Your task to perform on an android device: install app "Google Docs" Image 0: 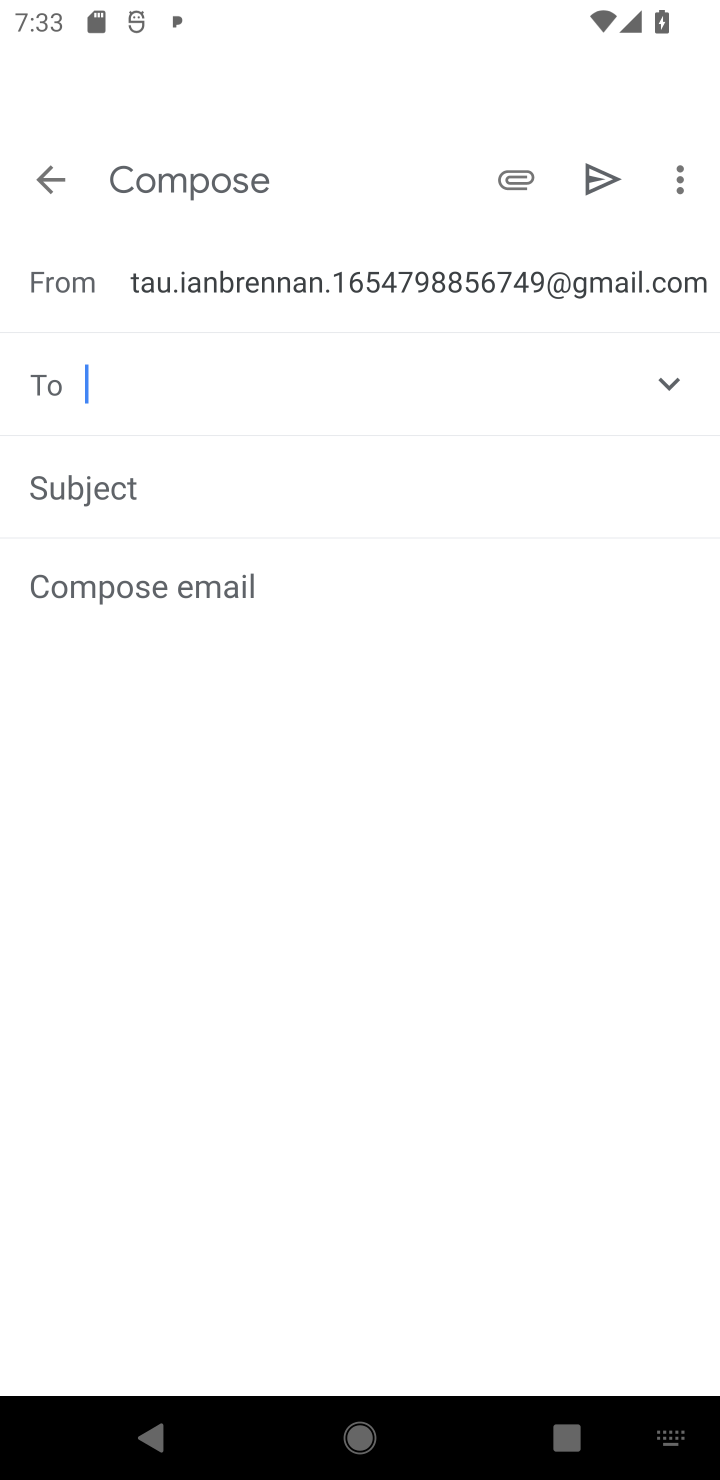
Step 0: press home button
Your task to perform on an android device: install app "Google Docs" Image 1: 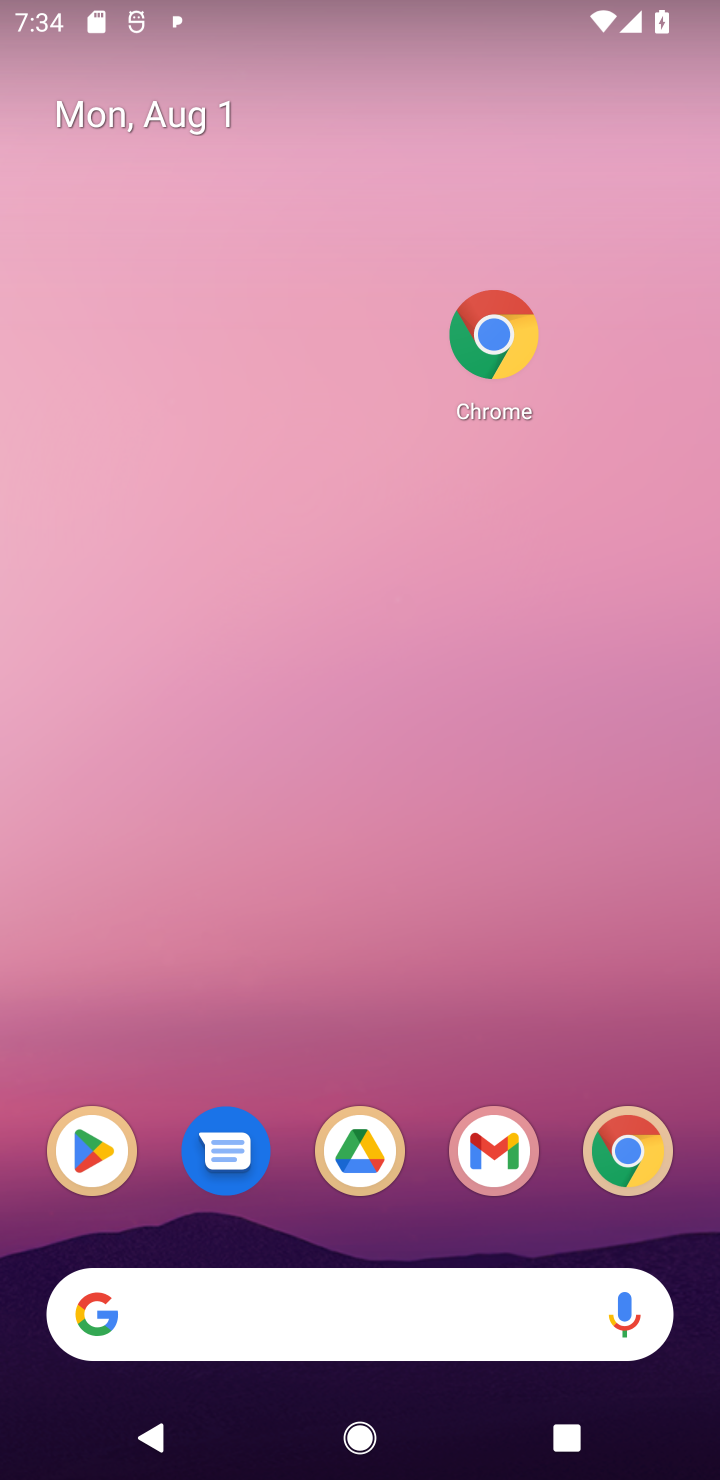
Step 1: click (91, 1147)
Your task to perform on an android device: install app "Google Docs" Image 2: 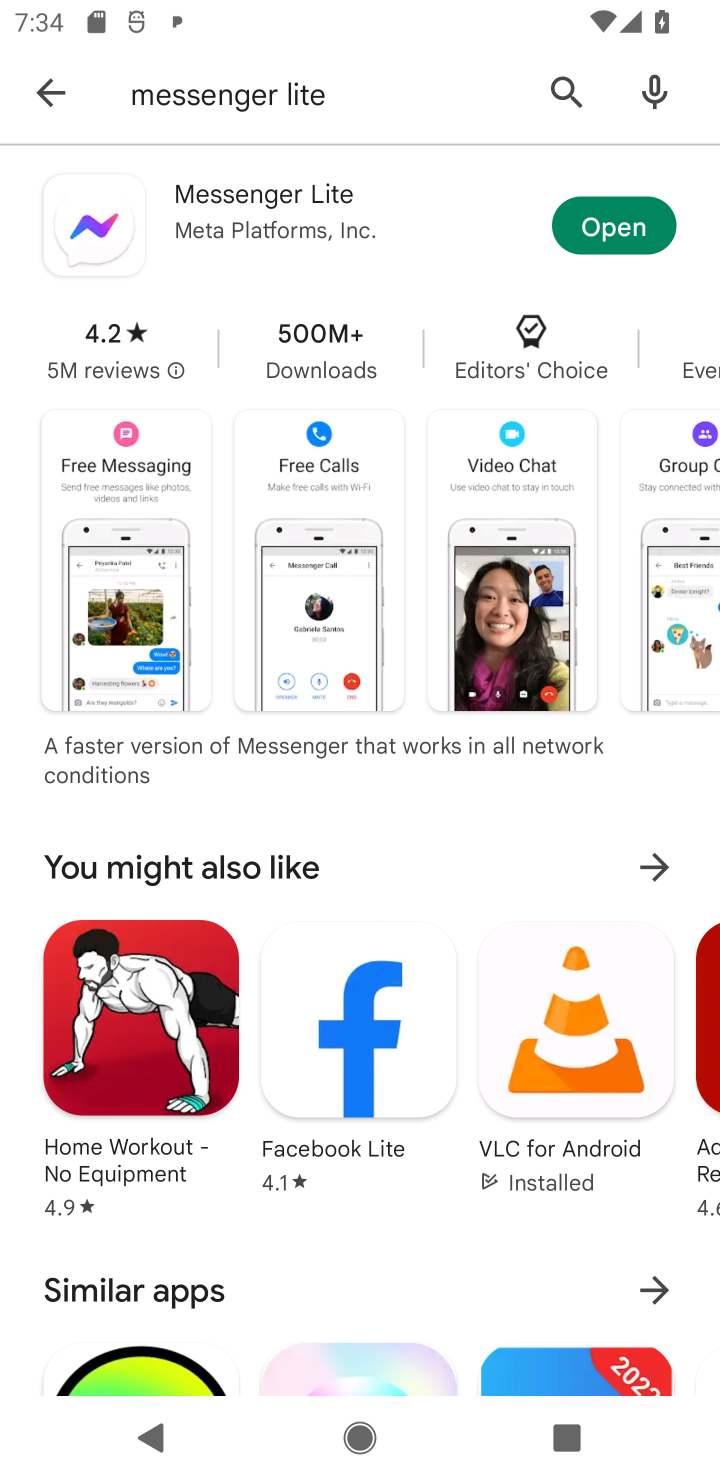
Step 2: click (563, 90)
Your task to perform on an android device: install app "Google Docs" Image 3: 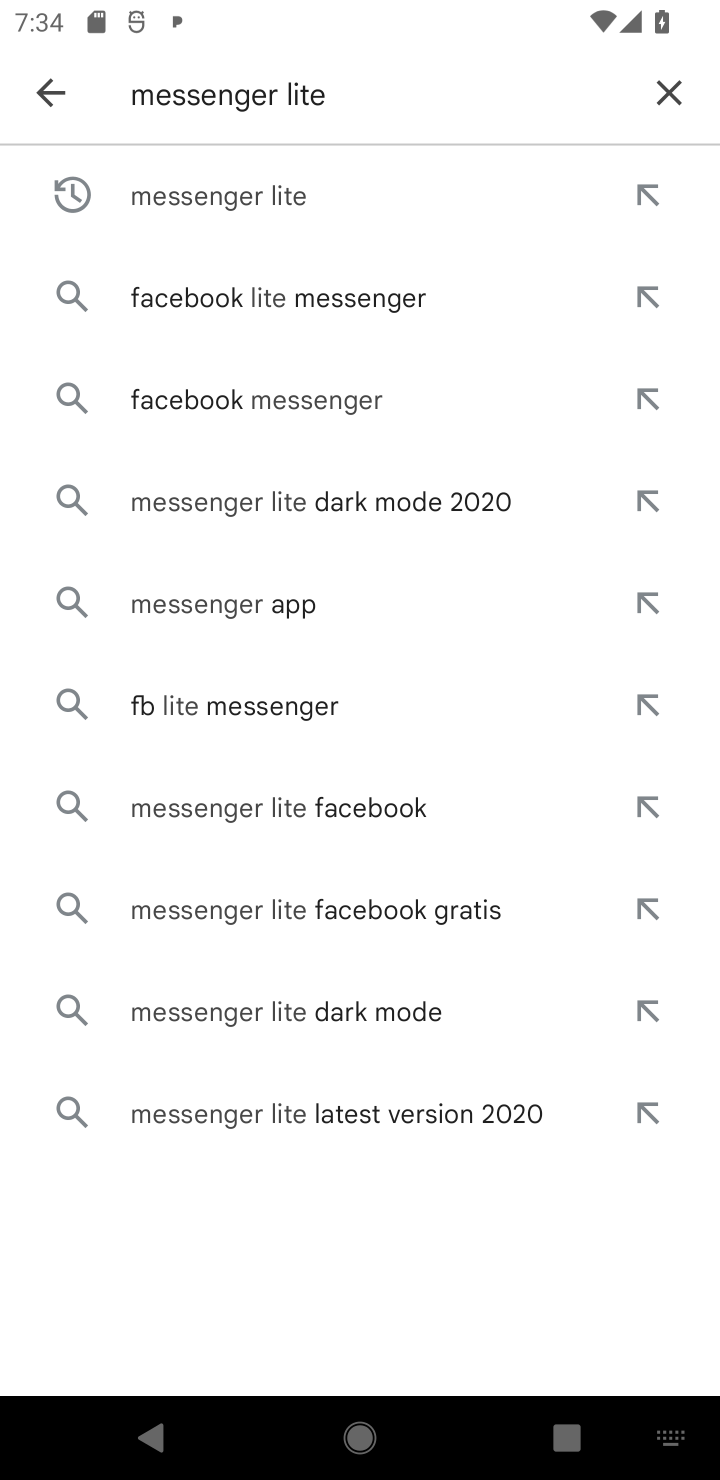
Step 3: click (661, 94)
Your task to perform on an android device: install app "Google Docs" Image 4: 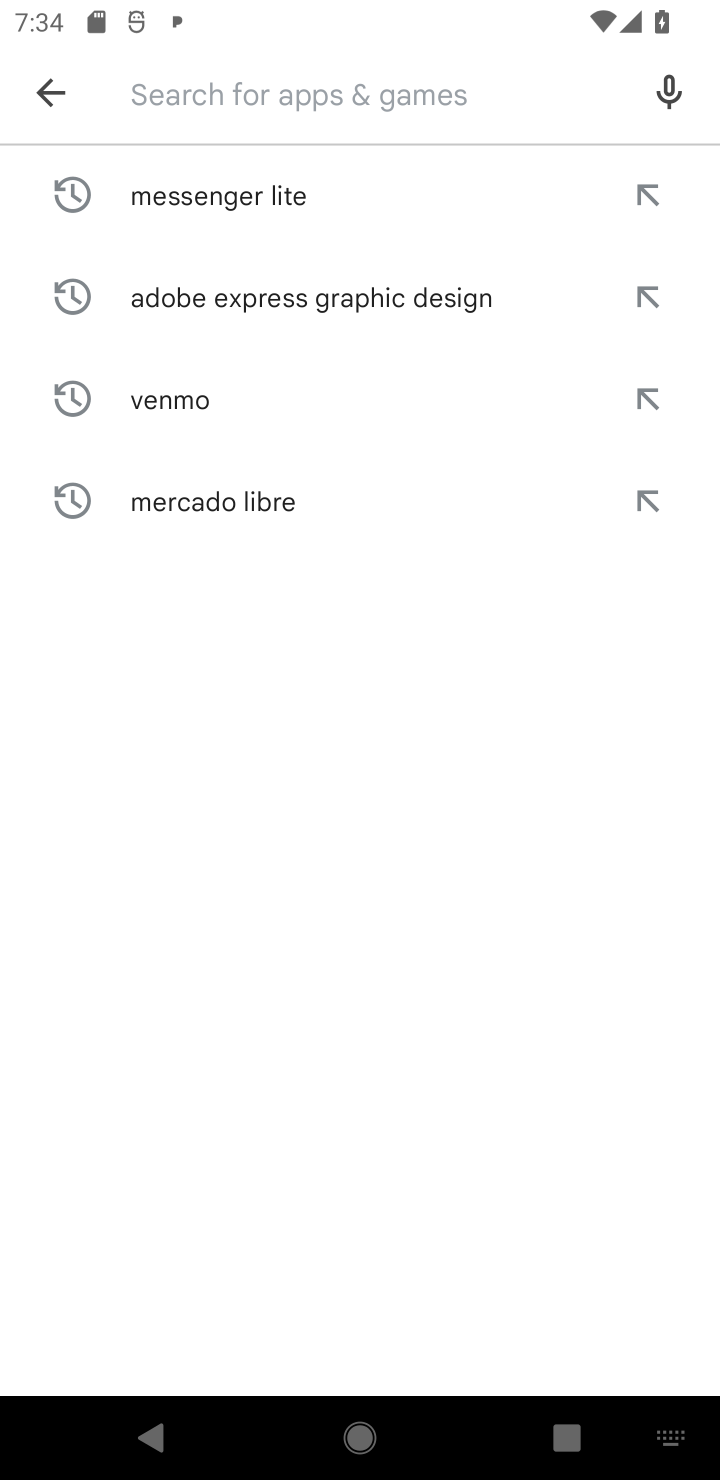
Step 4: type "Google Docs"
Your task to perform on an android device: install app "Google Docs" Image 5: 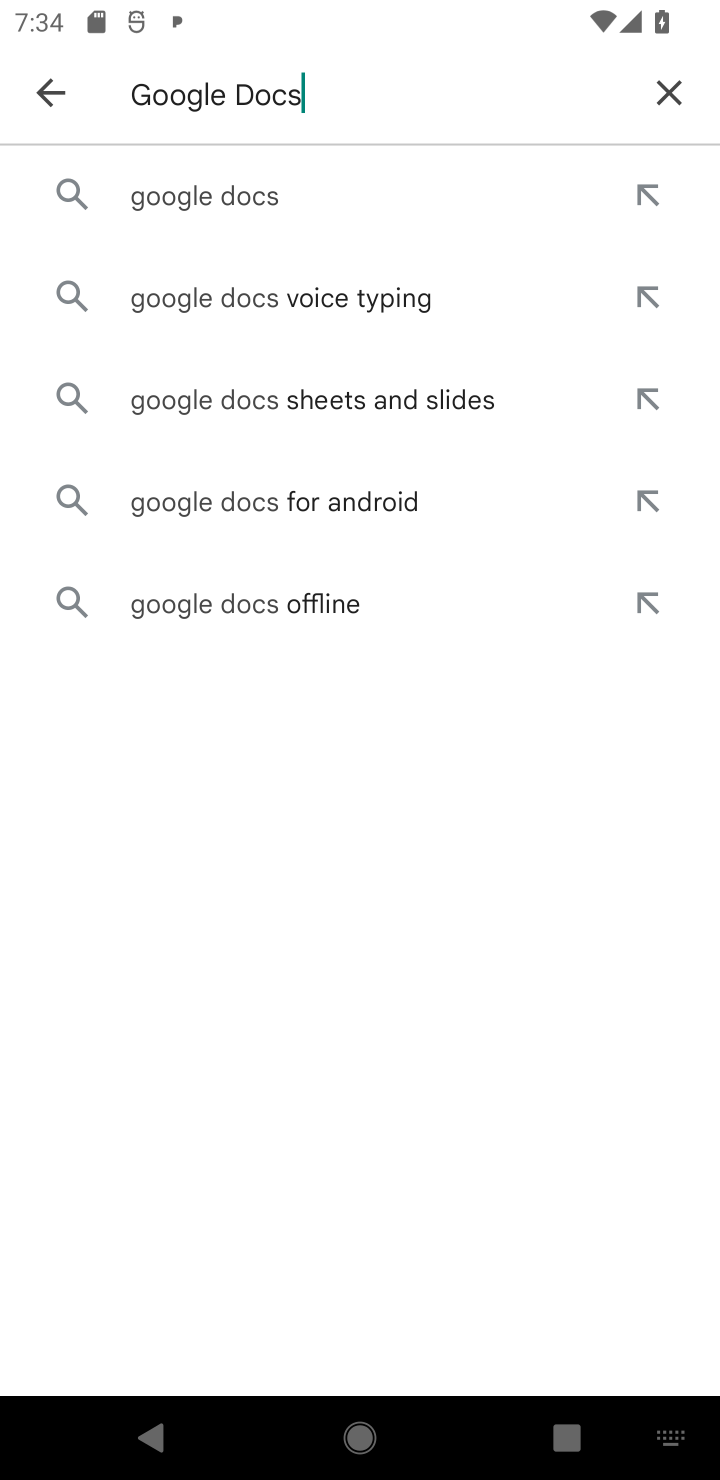
Step 5: click (232, 188)
Your task to perform on an android device: install app "Google Docs" Image 6: 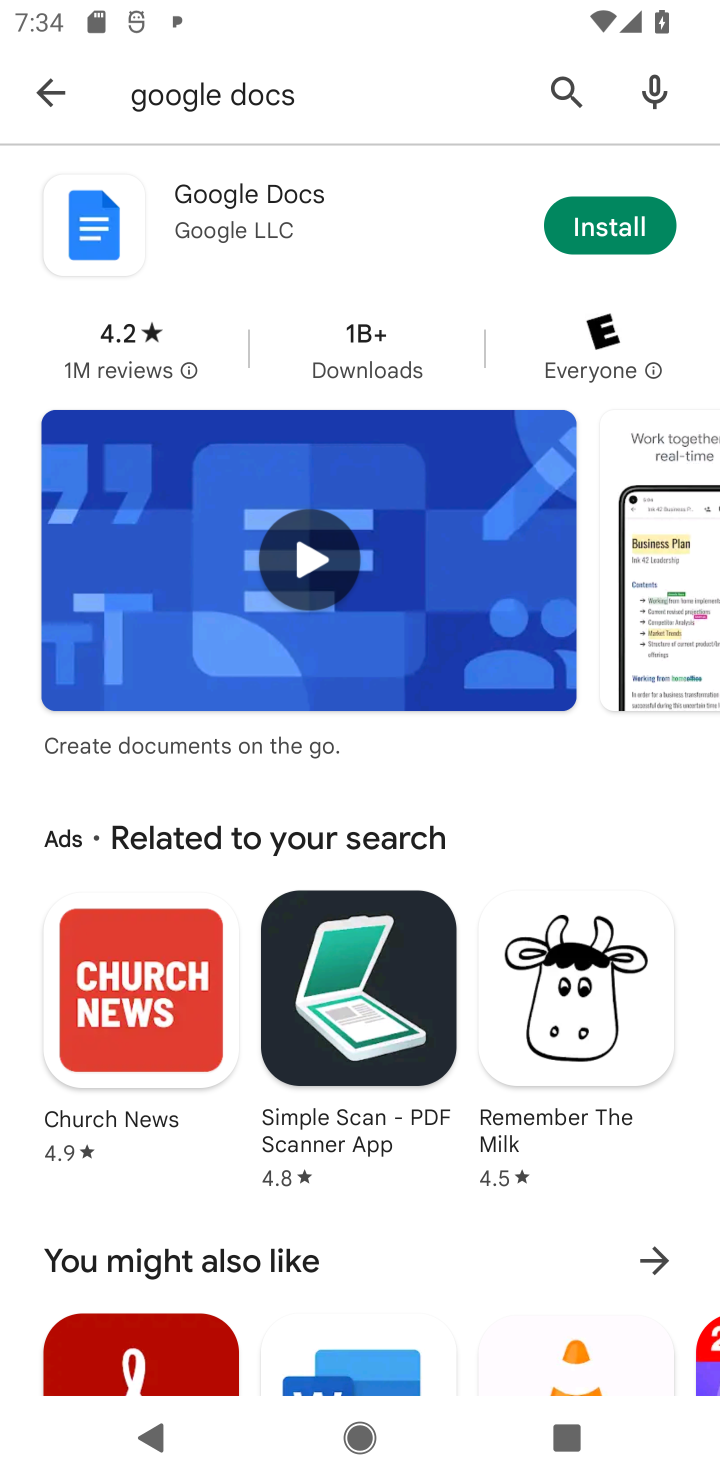
Step 6: click (606, 226)
Your task to perform on an android device: install app "Google Docs" Image 7: 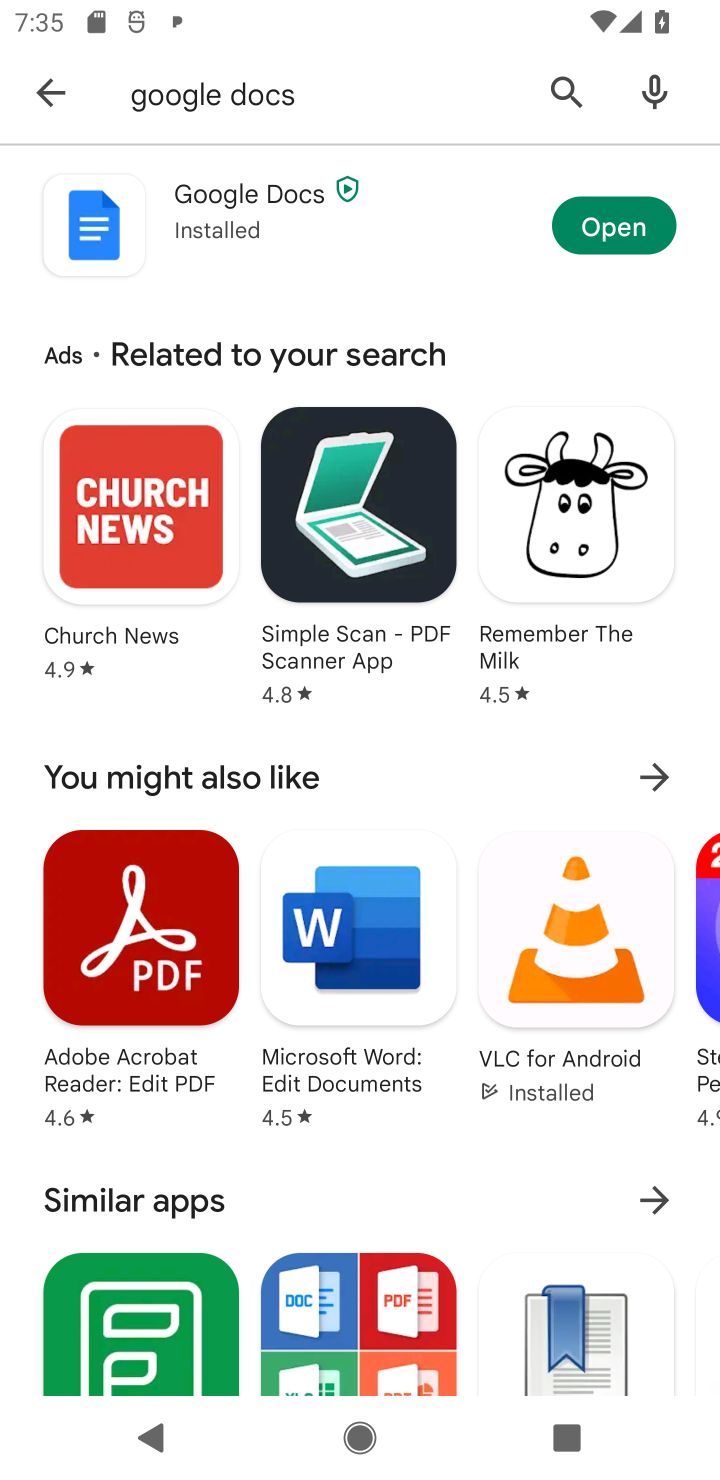
Step 7: task complete